Your task to perform on an android device: turn on bluetooth scan Image 0: 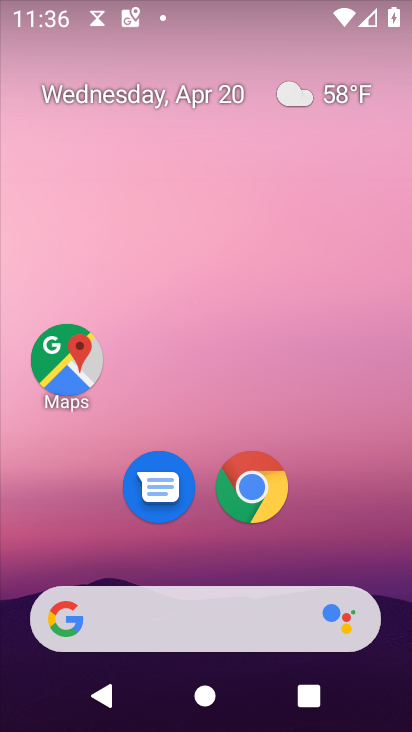
Step 0: drag from (300, 353) to (206, 37)
Your task to perform on an android device: turn on bluetooth scan Image 1: 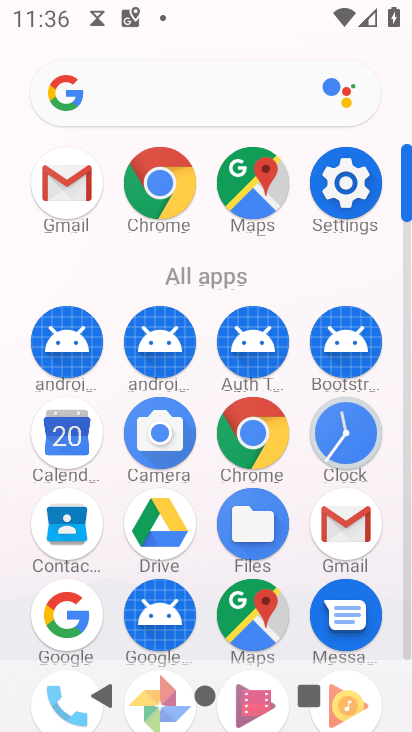
Step 1: drag from (12, 511) to (20, 234)
Your task to perform on an android device: turn on bluetooth scan Image 2: 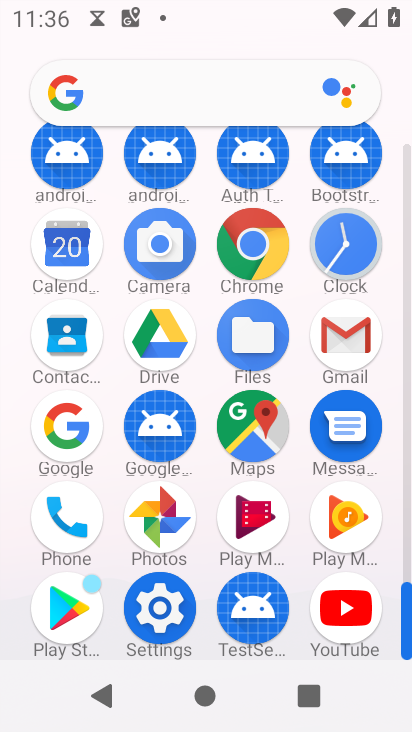
Step 2: click (155, 604)
Your task to perform on an android device: turn on bluetooth scan Image 3: 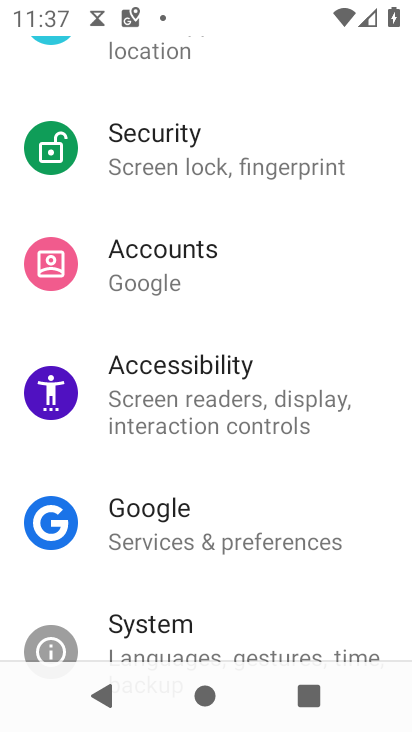
Step 3: drag from (292, 459) to (286, 102)
Your task to perform on an android device: turn on bluetooth scan Image 4: 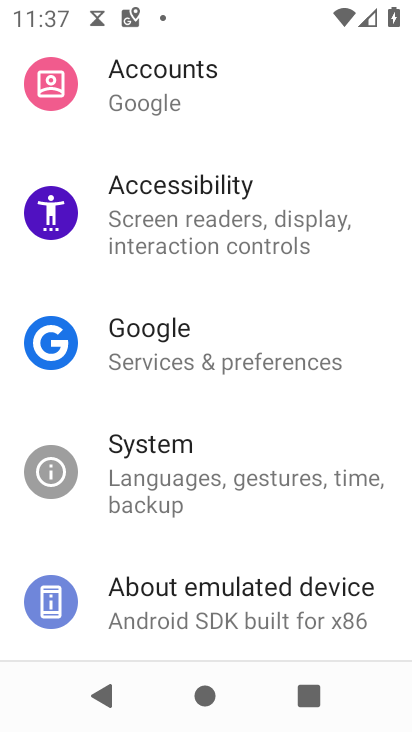
Step 4: drag from (264, 256) to (258, 507)
Your task to perform on an android device: turn on bluetooth scan Image 5: 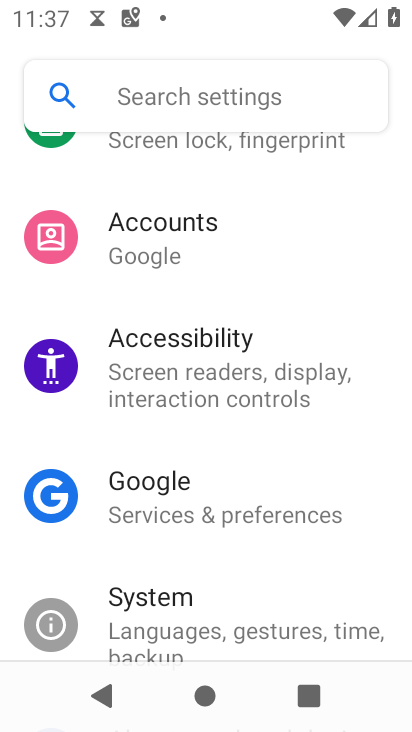
Step 5: drag from (241, 266) to (246, 510)
Your task to perform on an android device: turn on bluetooth scan Image 6: 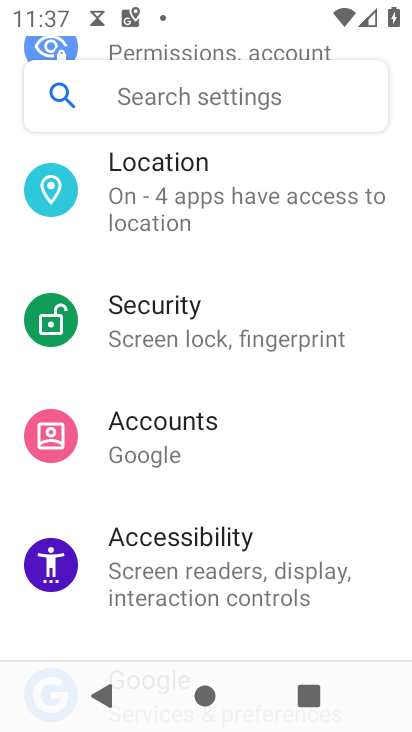
Step 6: click (251, 483)
Your task to perform on an android device: turn on bluetooth scan Image 7: 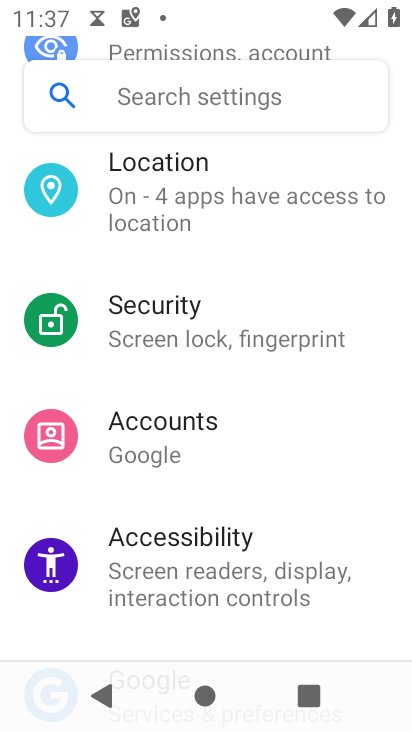
Step 7: click (230, 182)
Your task to perform on an android device: turn on bluetooth scan Image 8: 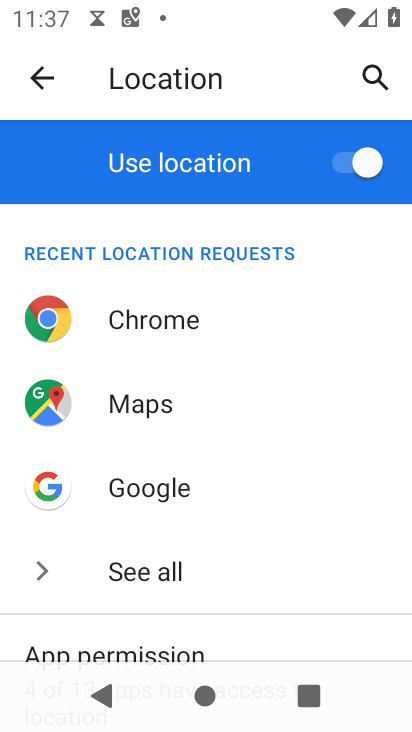
Step 8: drag from (281, 524) to (251, 241)
Your task to perform on an android device: turn on bluetooth scan Image 9: 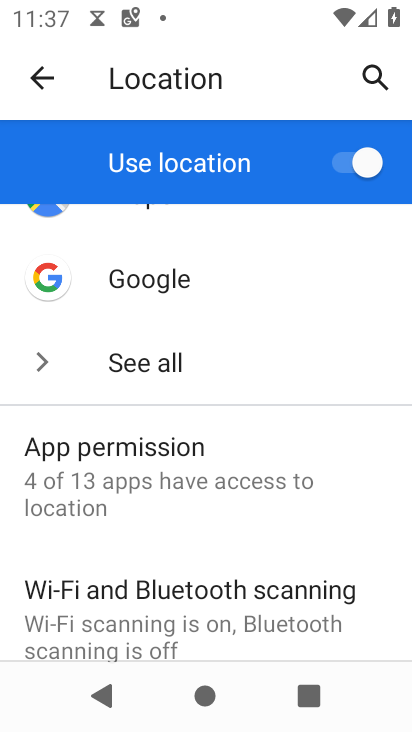
Step 9: drag from (226, 543) to (224, 272)
Your task to perform on an android device: turn on bluetooth scan Image 10: 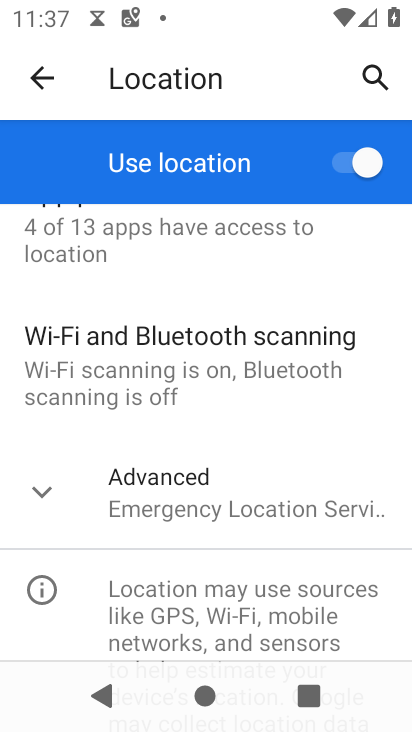
Step 10: click (241, 497)
Your task to perform on an android device: turn on bluetooth scan Image 11: 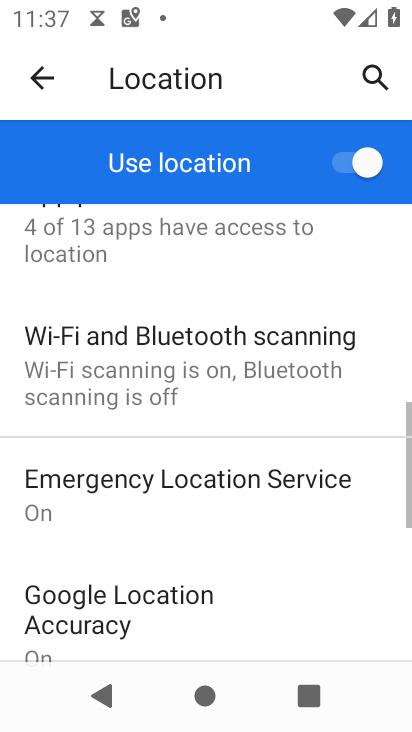
Step 11: click (199, 344)
Your task to perform on an android device: turn on bluetooth scan Image 12: 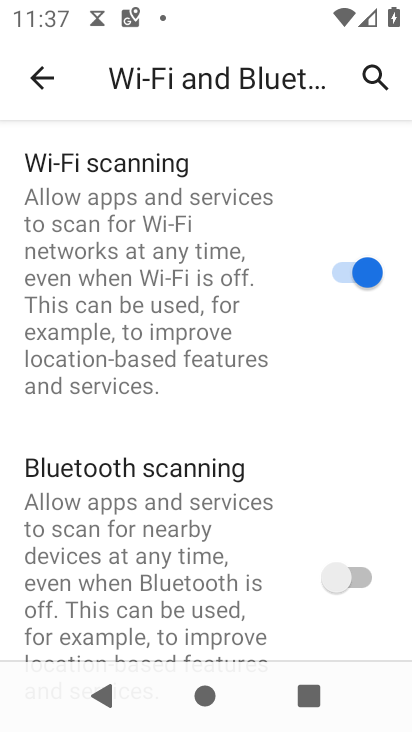
Step 12: drag from (212, 573) to (242, 285)
Your task to perform on an android device: turn on bluetooth scan Image 13: 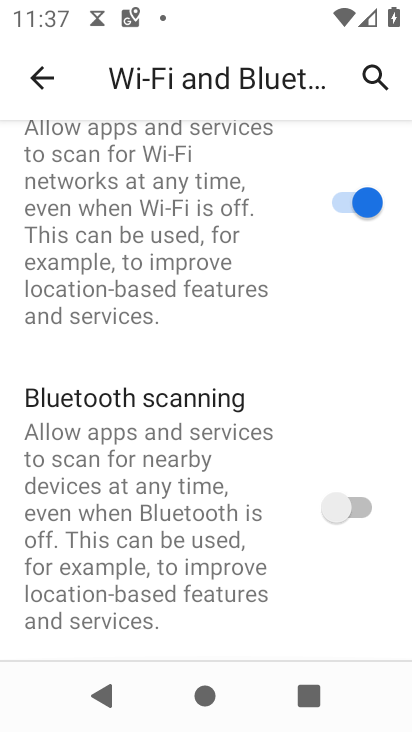
Step 13: click (334, 498)
Your task to perform on an android device: turn on bluetooth scan Image 14: 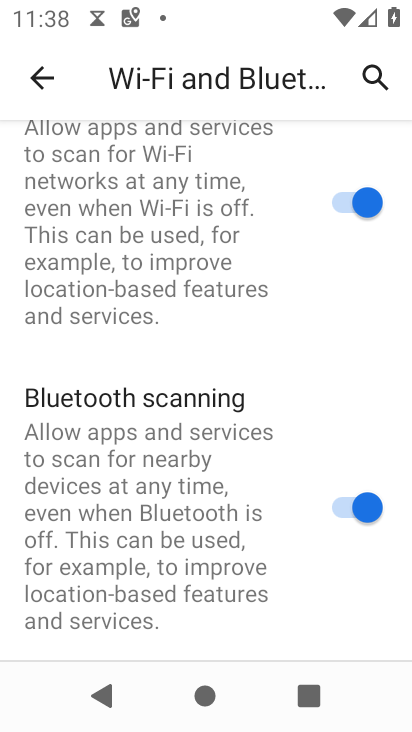
Step 14: task complete